Your task to perform on an android device: Open the stopwatch Image 0: 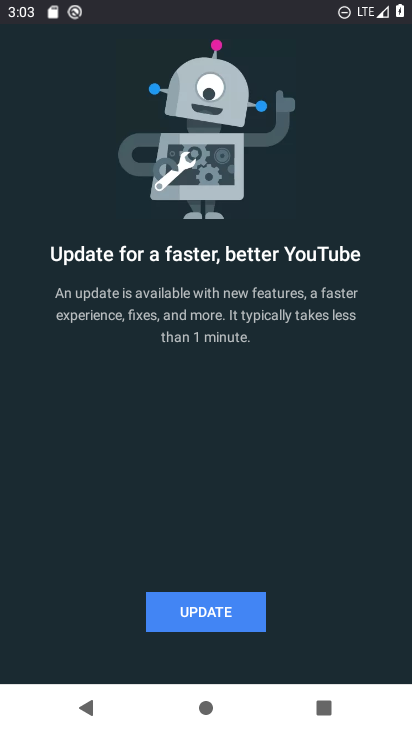
Step 0: press back button
Your task to perform on an android device: Open the stopwatch Image 1: 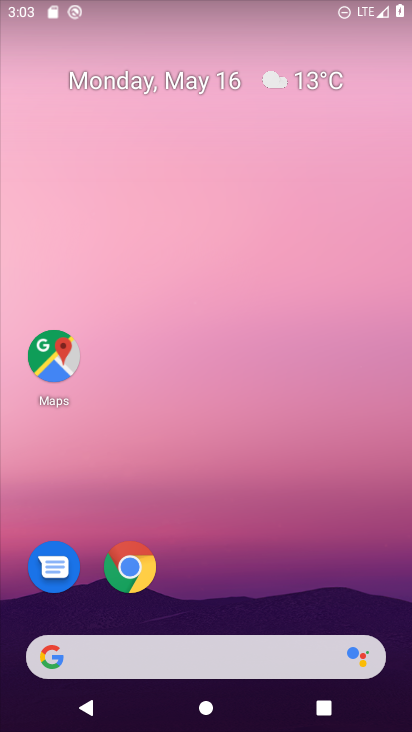
Step 1: drag from (316, 390) to (324, 115)
Your task to perform on an android device: Open the stopwatch Image 2: 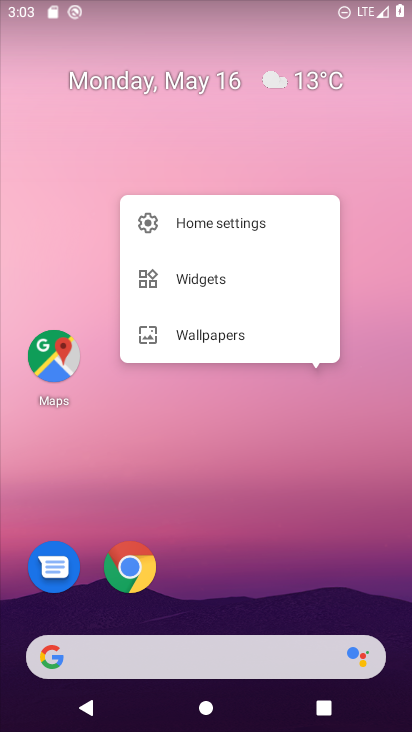
Step 2: click (334, 485)
Your task to perform on an android device: Open the stopwatch Image 3: 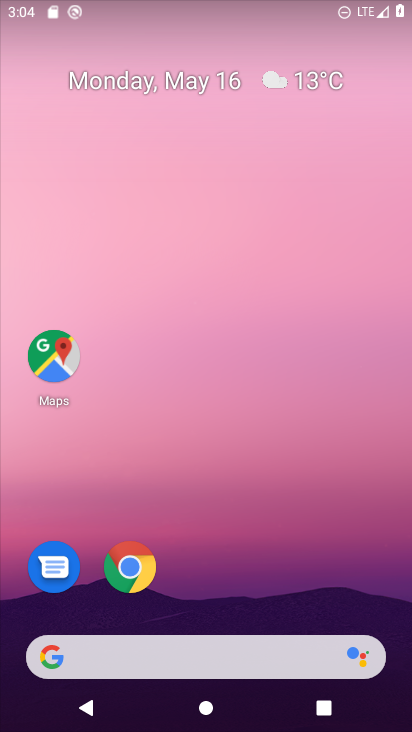
Step 3: drag from (289, 608) to (259, 122)
Your task to perform on an android device: Open the stopwatch Image 4: 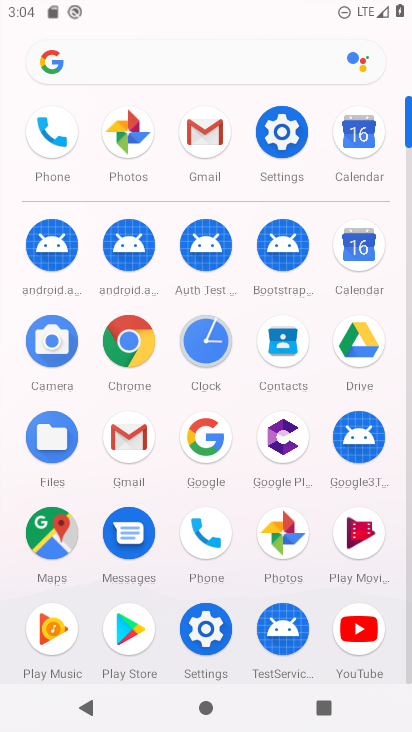
Step 4: click (214, 334)
Your task to perform on an android device: Open the stopwatch Image 5: 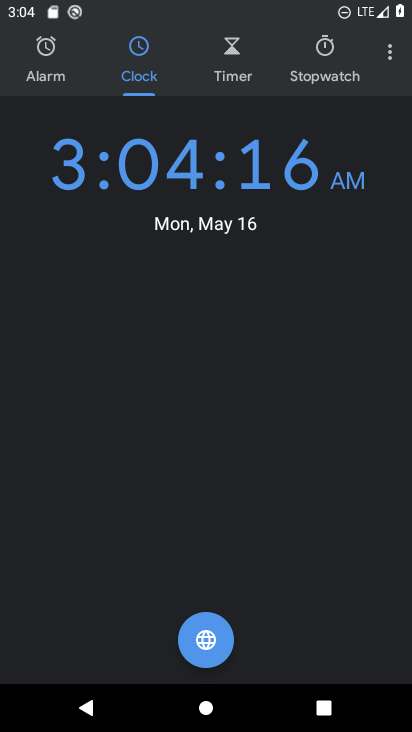
Step 5: click (326, 70)
Your task to perform on an android device: Open the stopwatch Image 6: 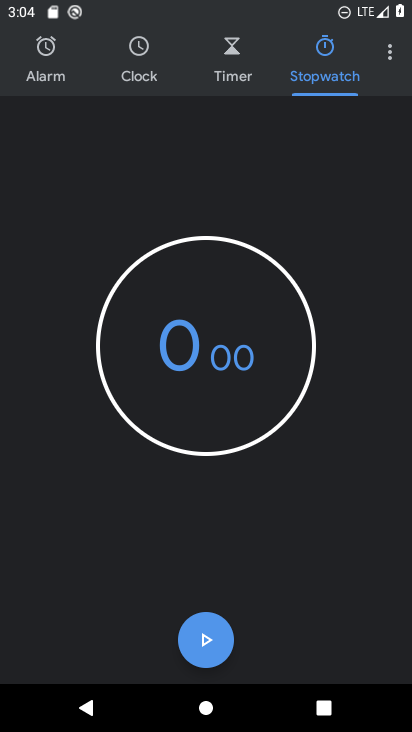
Step 6: task complete